Your task to perform on an android device: Open Google Image 0: 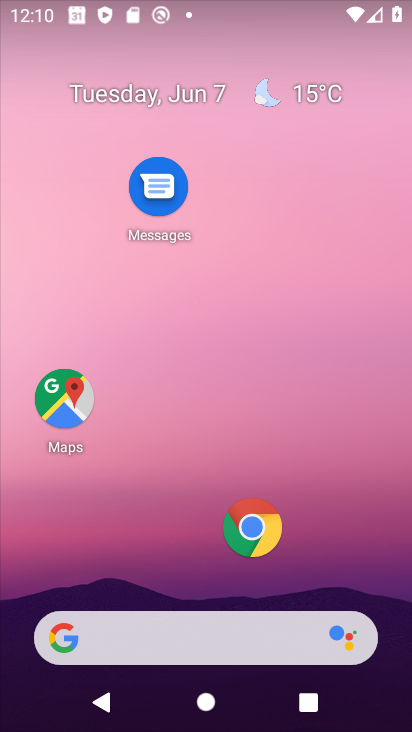
Step 0: drag from (203, 623) to (242, 185)
Your task to perform on an android device: Open Google Image 1: 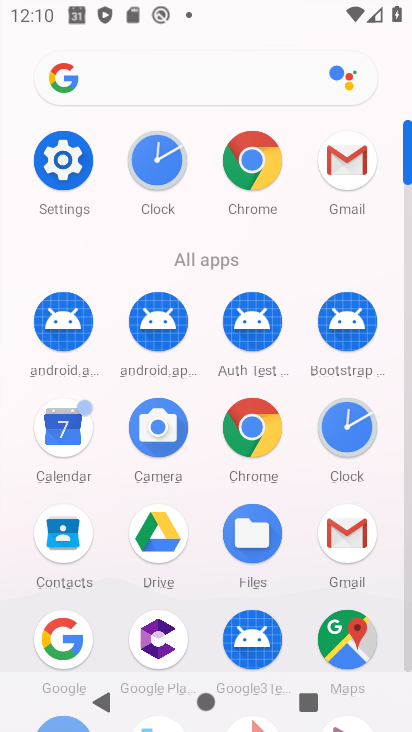
Step 1: click (68, 645)
Your task to perform on an android device: Open Google Image 2: 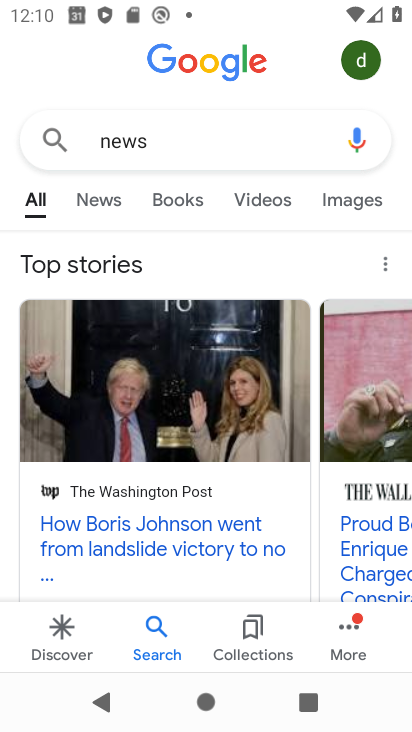
Step 2: task complete